Your task to perform on an android device: Go to calendar. Show me events next week Image 0: 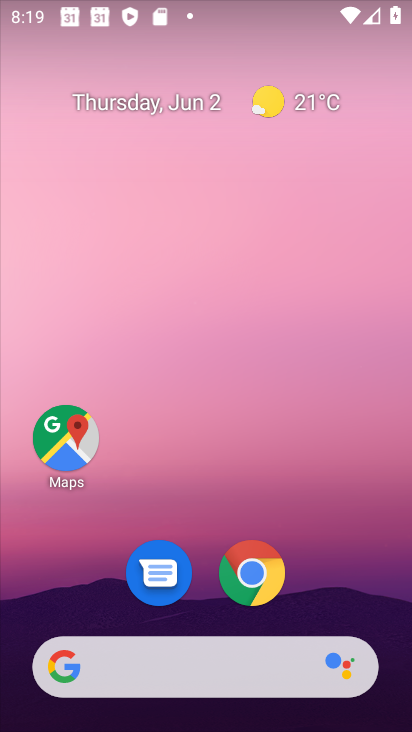
Step 0: drag from (305, 572) to (351, 43)
Your task to perform on an android device: Go to calendar. Show me events next week Image 1: 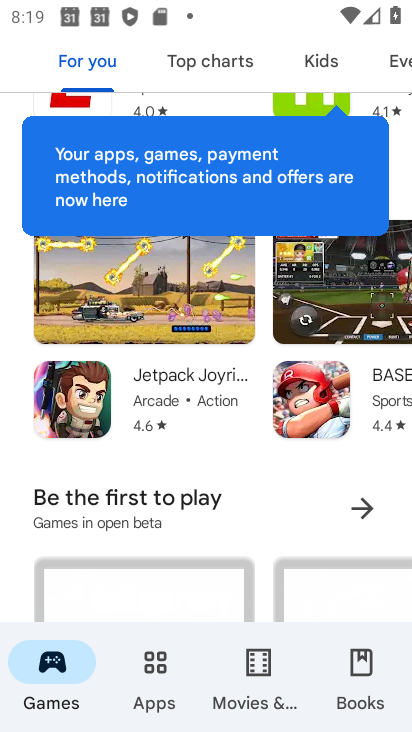
Step 1: press home button
Your task to perform on an android device: Go to calendar. Show me events next week Image 2: 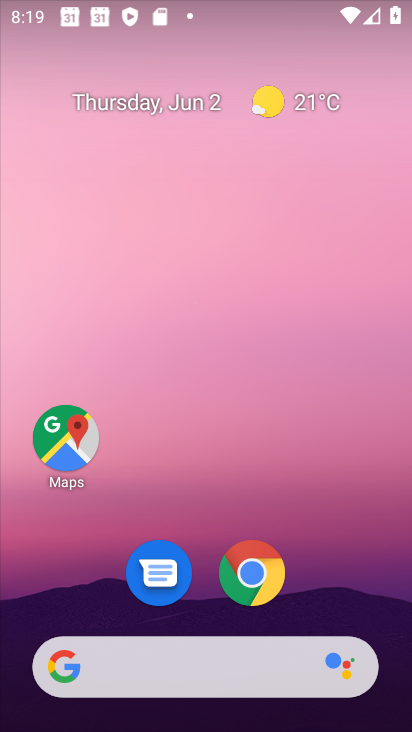
Step 2: drag from (344, 508) to (351, 65)
Your task to perform on an android device: Go to calendar. Show me events next week Image 3: 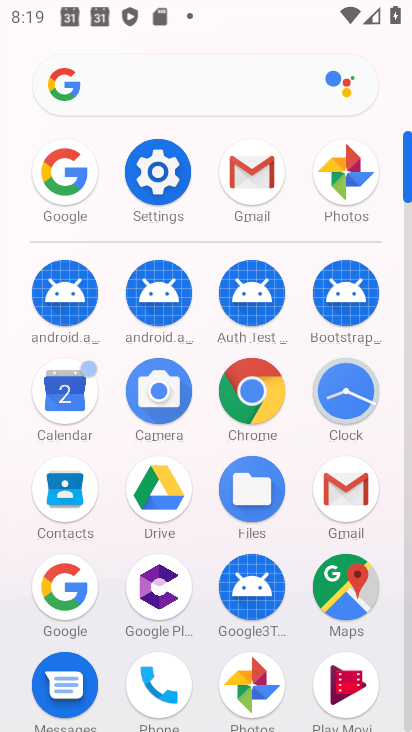
Step 3: click (62, 413)
Your task to perform on an android device: Go to calendar. Show me events next week Image 4: 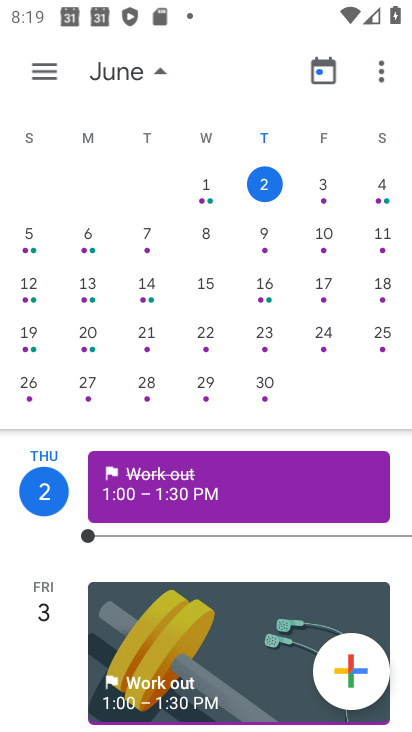
Step 4: drag from (376, 375) to (322, 315)
Your task to perform on an android device: Go to calendar. Show me events next week Image 5: 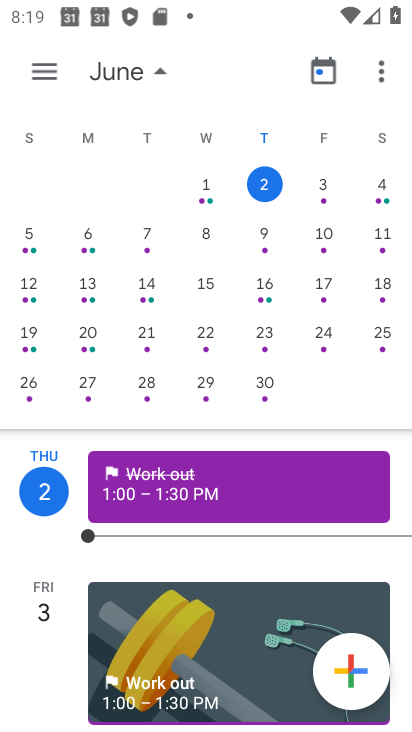
Step 5: click (321, 235)
Your task to perform on an android device: Go to calendar. Show me events next week Image 6: 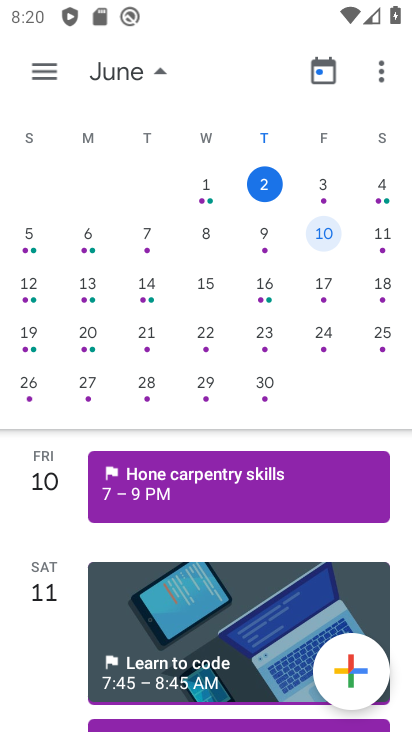
Step 6: task complete